Your task to perform on an android device: visit the assistant section in the google photos Image 0: 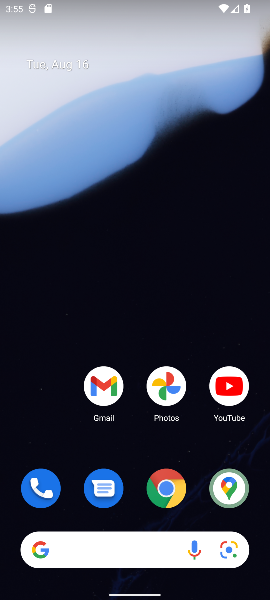
Step 0: click (174, 375)
Your task to perform on an android device: visit the assistant section in the google photos Image 1: 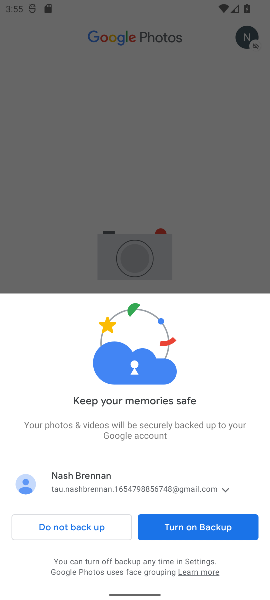
Step 1: task complete